Your task to perform on an android device: turn off sleep mode Image 0: 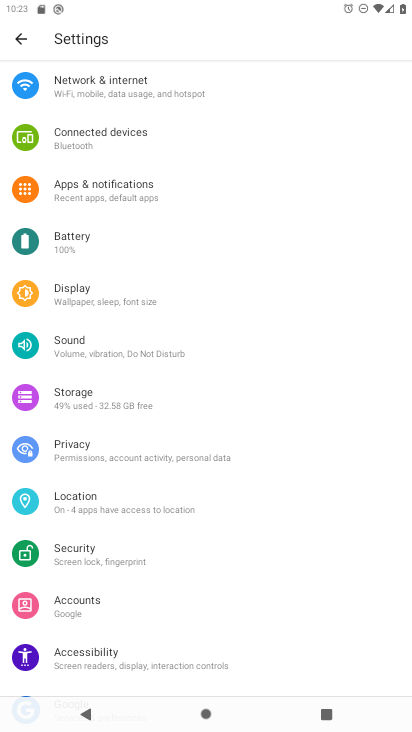
Step 0: press home button
Your task to perform on an android device: turn off sleep mode Image 1: 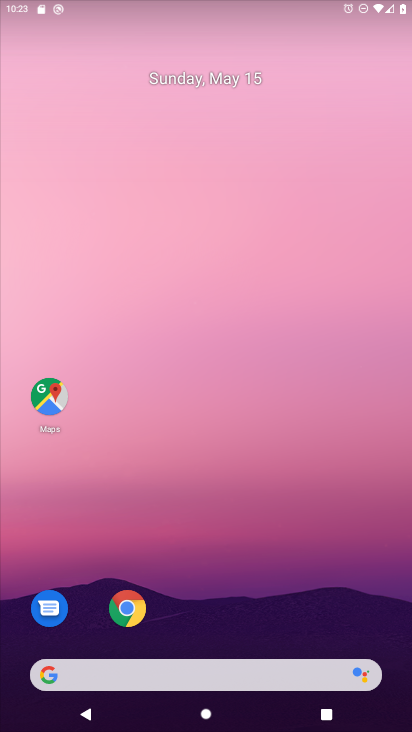
Step 1: drag from (306, 592) to (314, 288)
Your task to perform on an android device: turn off sleep mode Image 2: 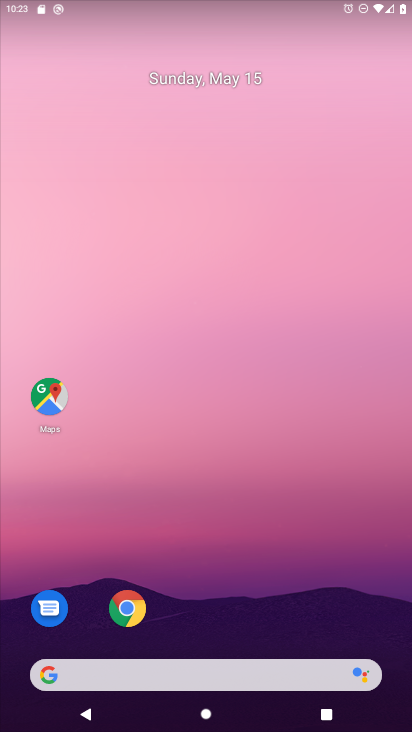
Step 2: drag from (363, 610) to (407, 118)
Your task to perform on an android device: turn off sleep mode Image 3: 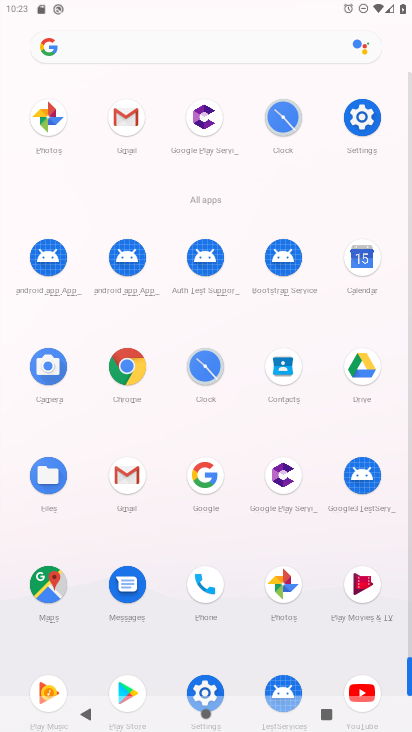
Step 3: click (365, 133)
Your task to perform on an android device: turn off sleep mode Image 4: 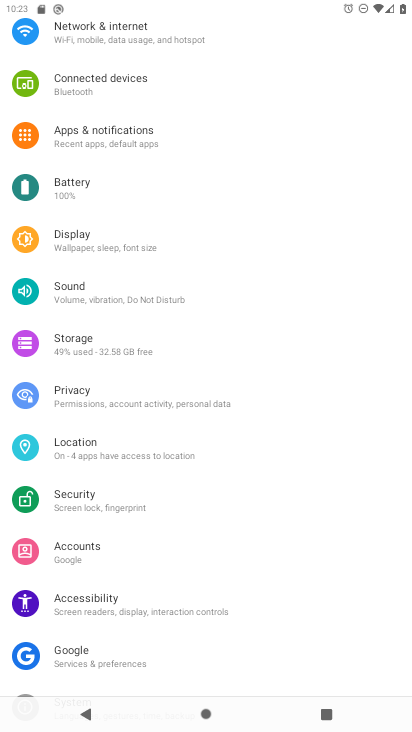
Step 4: drag from (237, 106) to (241, 616)
Your task to perform on an android device: turn off sleep mode Image 5: 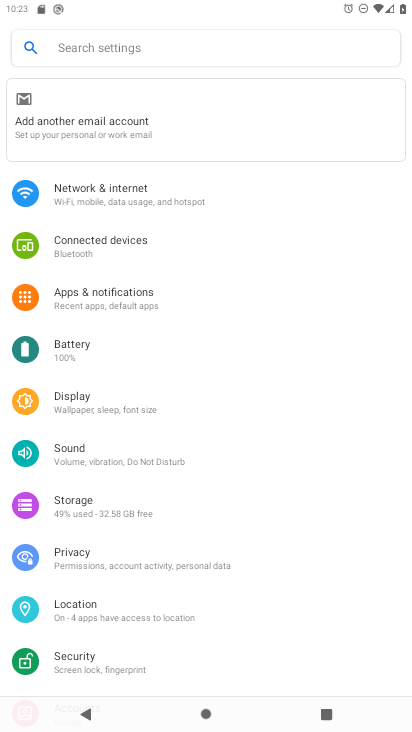
Step 5: click (197, 39)
Your task to perform on an android device: turn off sleep mode Image 6: 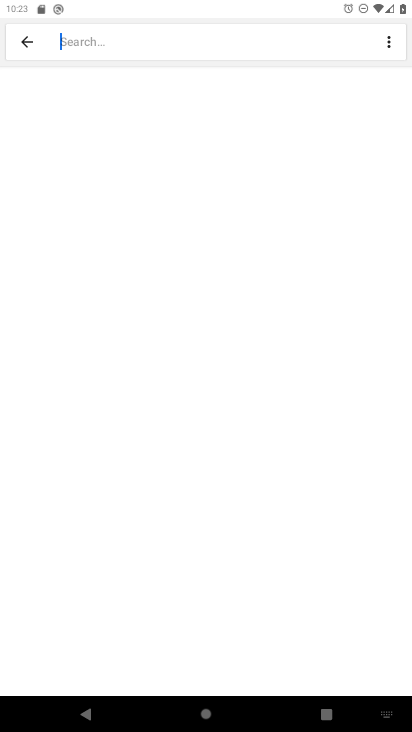
Step 6: type "sleep mode]"
Your task to perform on an android device: turn off sleep mode Image 7: 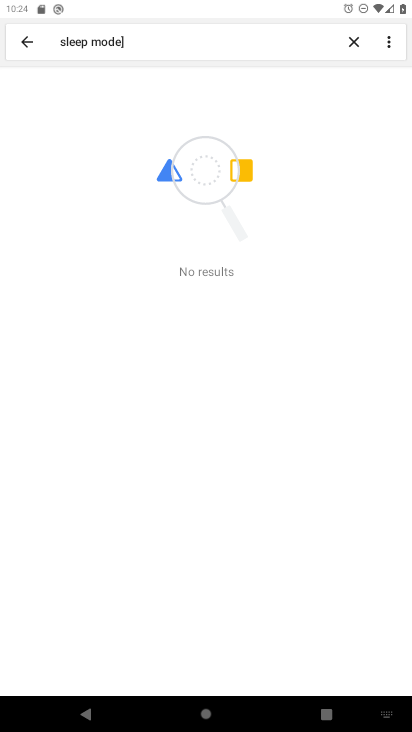
Step 7: task complete